Your task to perform on an android device: install app "Flipkart Online Shopping App" Image 0: 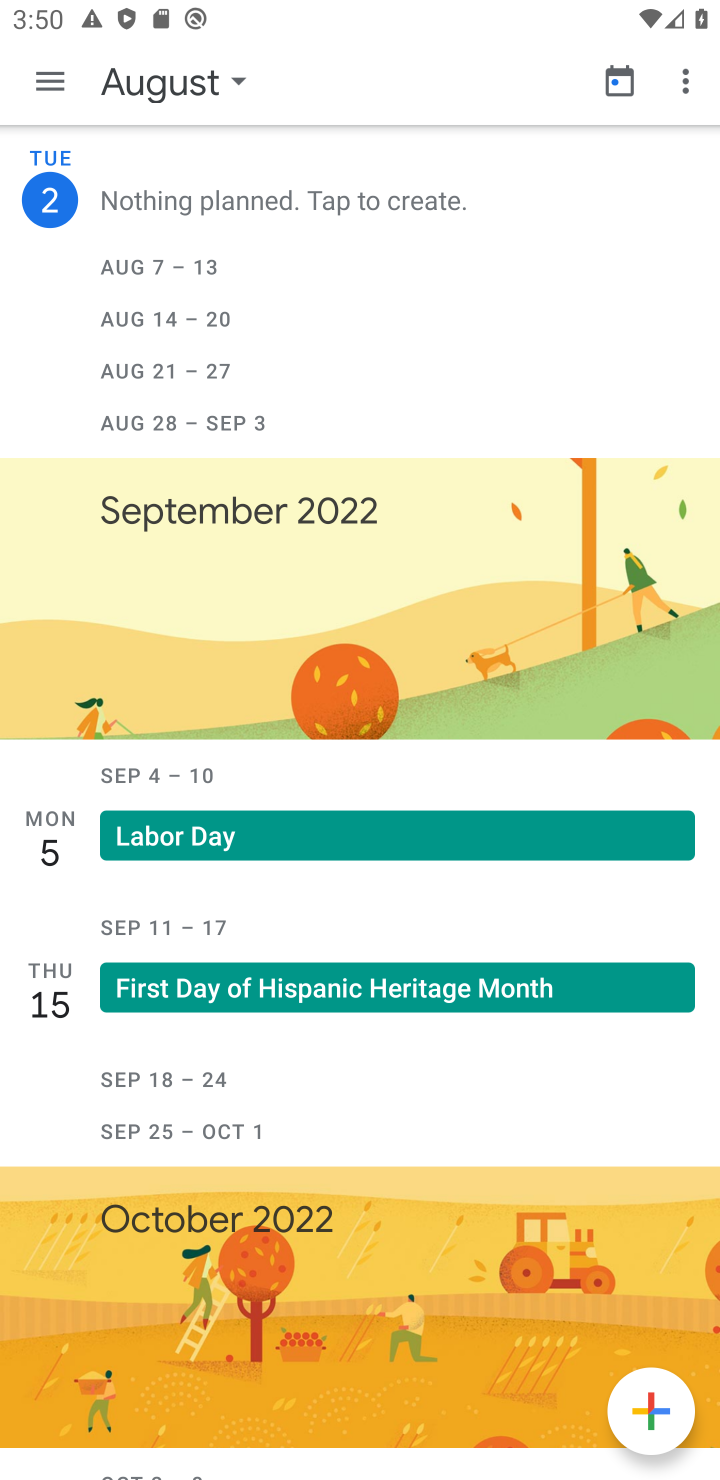
Step 0: press home button
Your task to perform on an android device: install app "Flipkart Online Shopping App" Image 1: 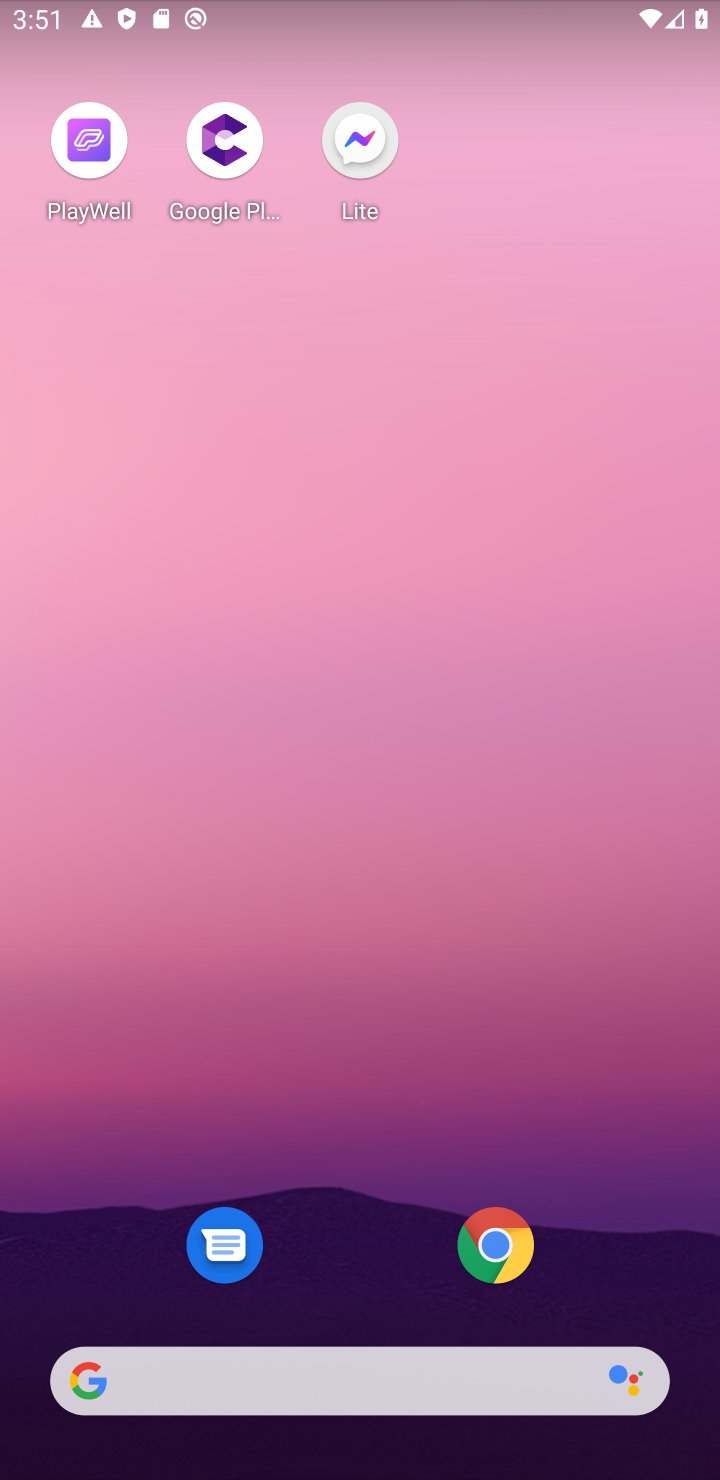
Step 1: drag from (382, 1035) to (406, 73)
Your task to perform on an android device: install app "Flipkart Online Shopping App" Image 2: 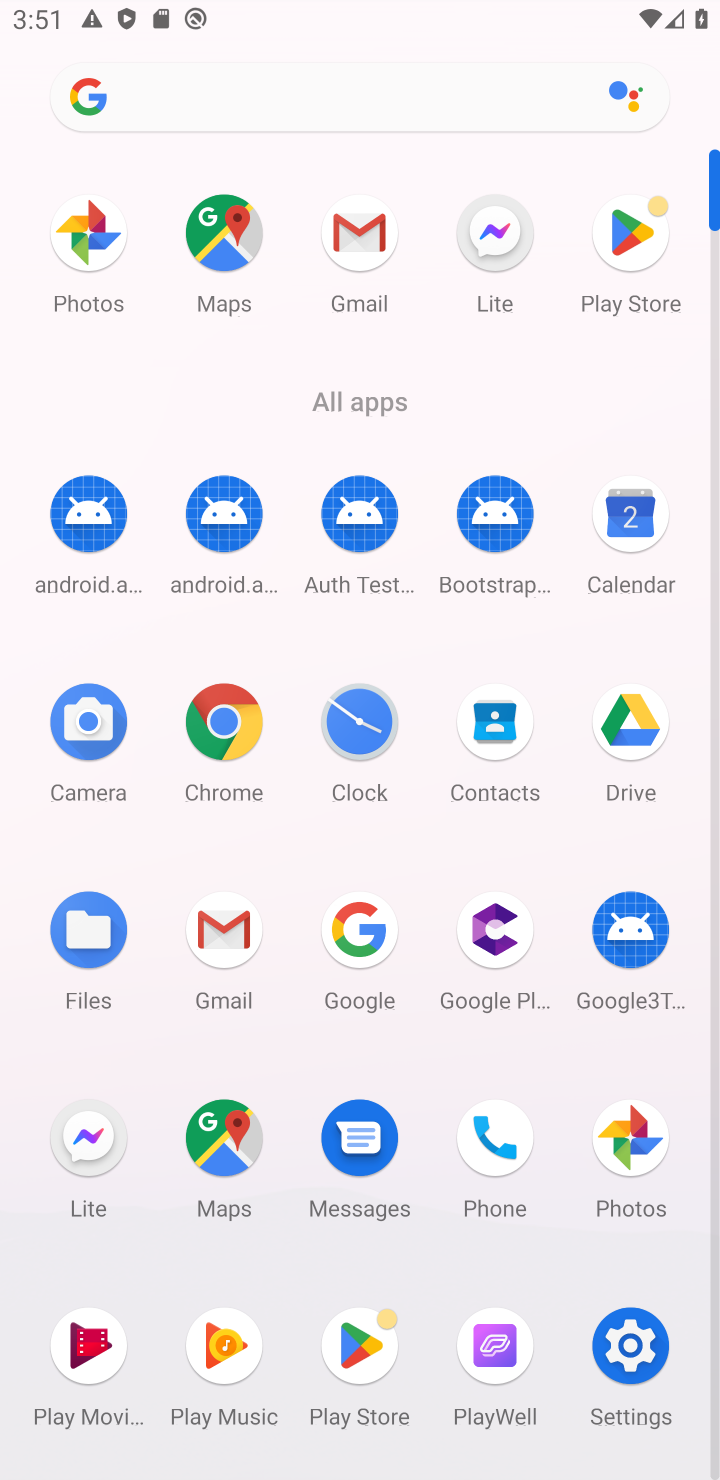
Step 2: click (627, 247)
Your task to perform on an android device: install app "Flipkart Online Shopping App" Image 3: 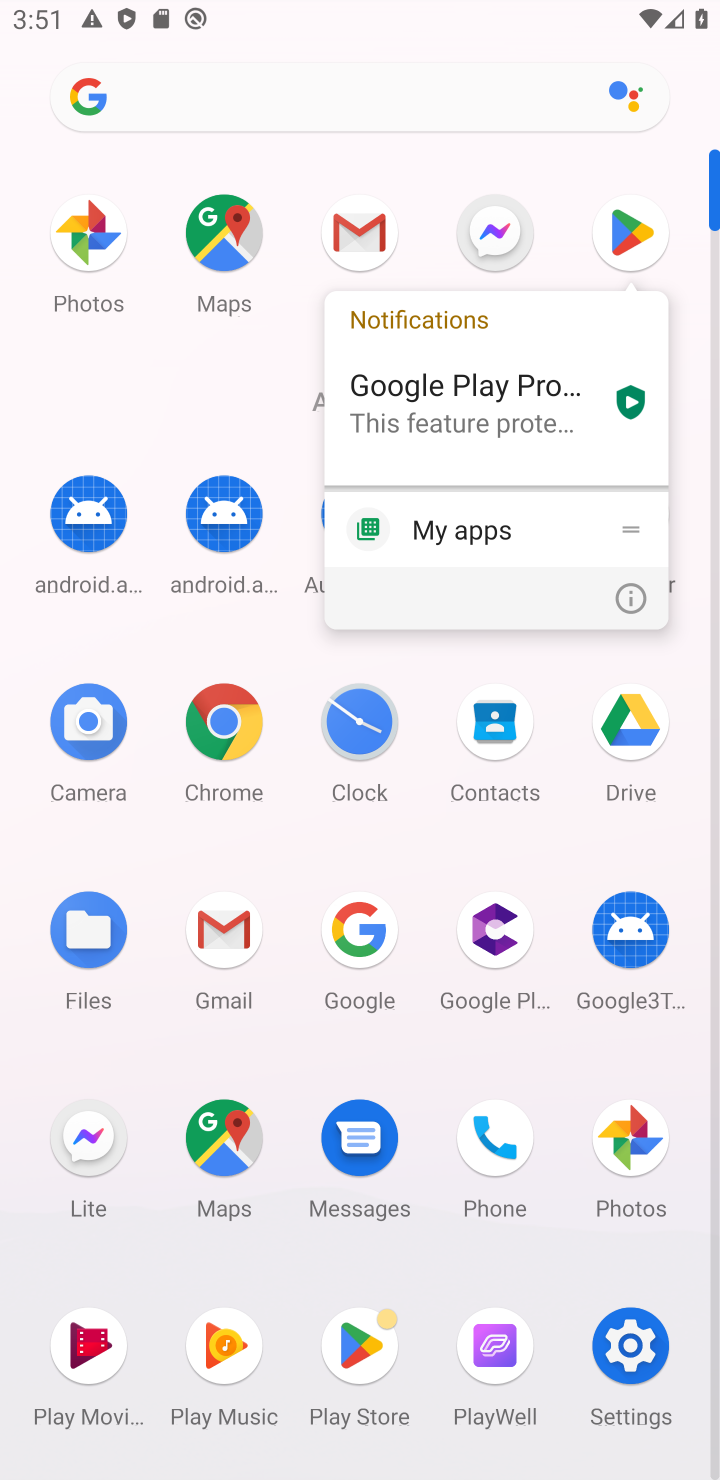
Step 3: click (627, 232)
Your task to perform on an android device: install app "Flipkart Online Shopping App" Image 4: 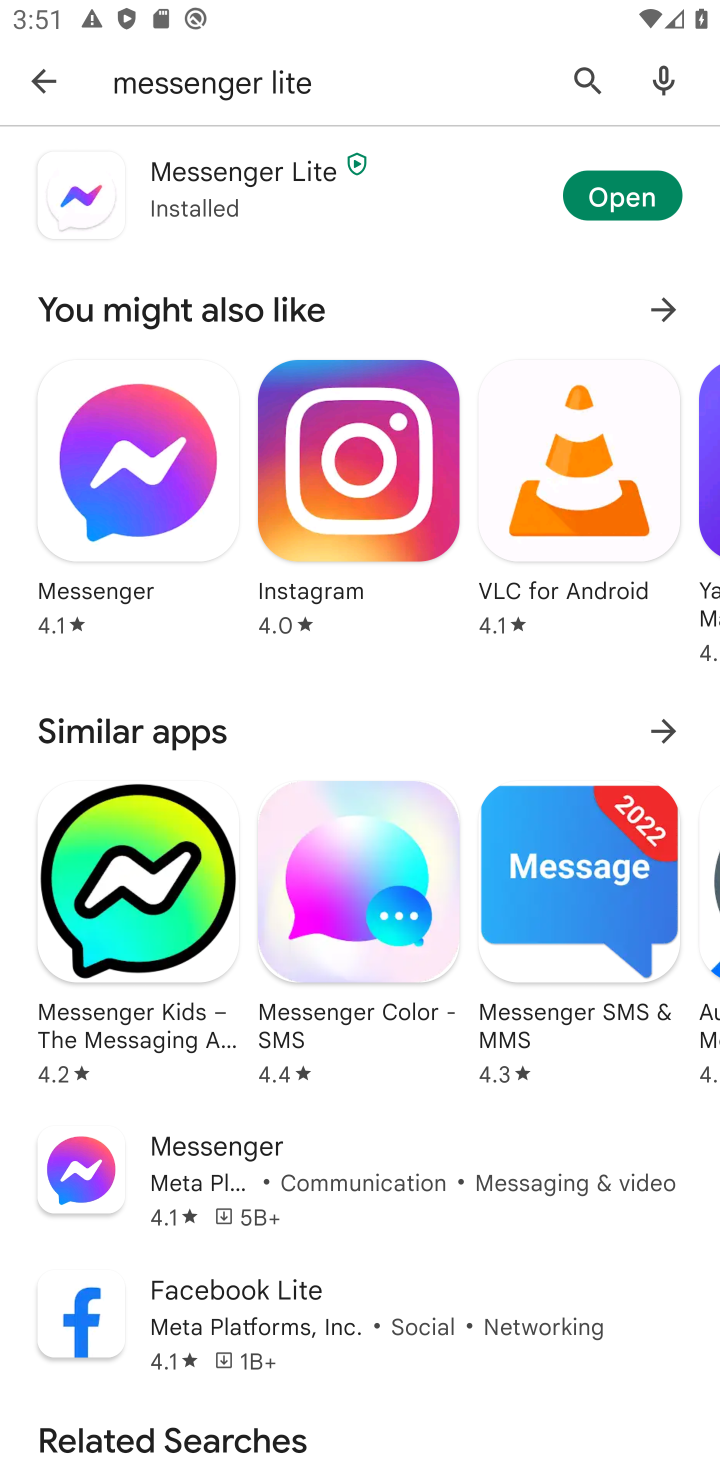
Step 4: click (586, 75)
Your task to perform on an android device: install app "Flipkart Online Shopping App" Image 5: 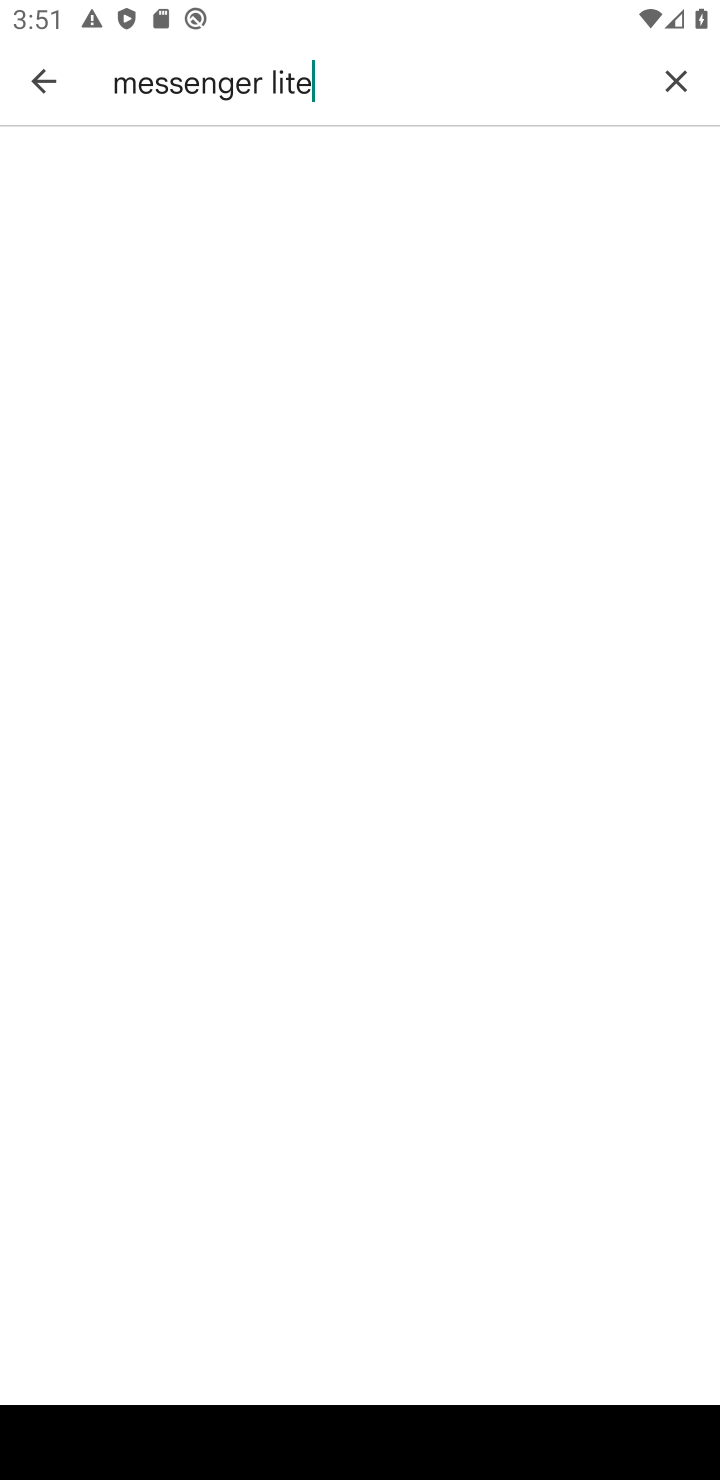
Step 5: click (664, 77)
Your task to perform on an android device: install app "Flipkart Online Shopping App" Image 6: 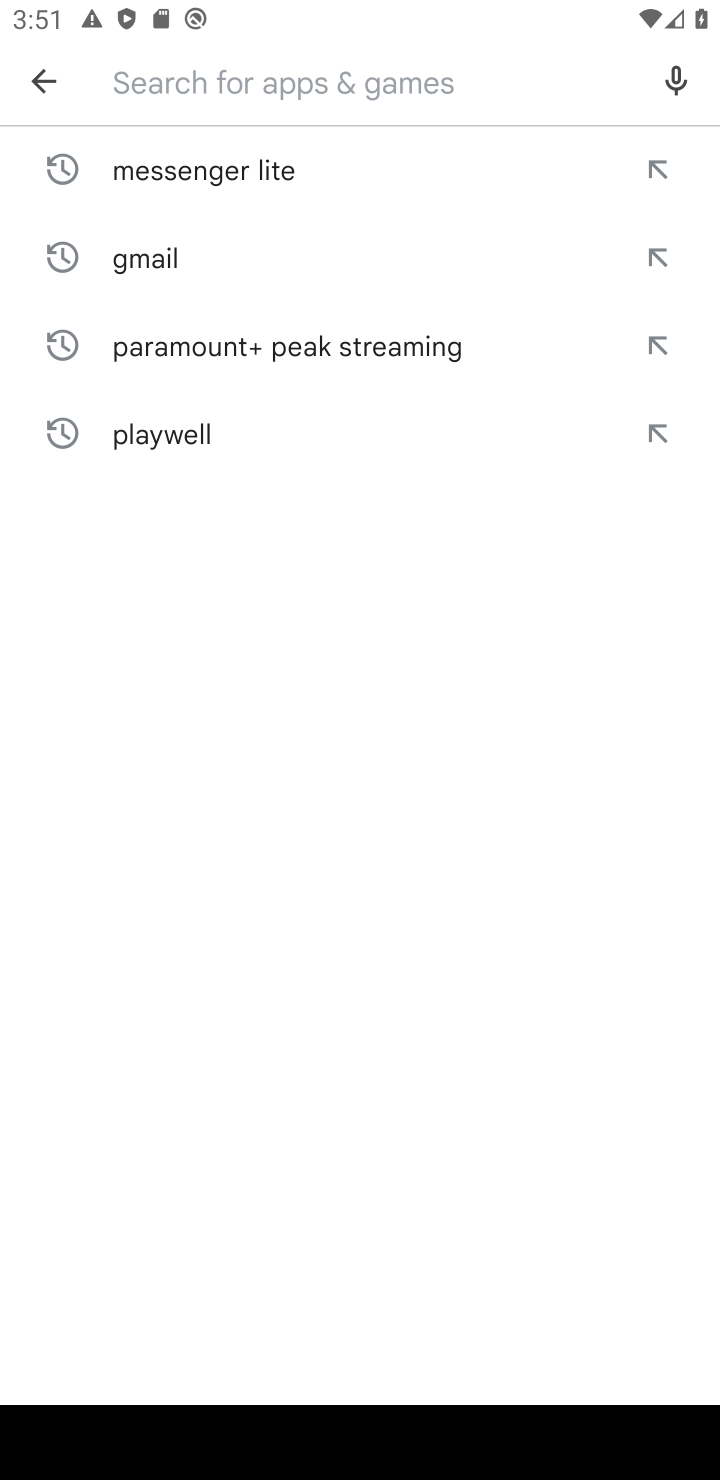
Step 6: type "Flipkart Online Shopping App"
Your task to perform on an android device: install app "Flipkart Online Shopping App" Image 7: 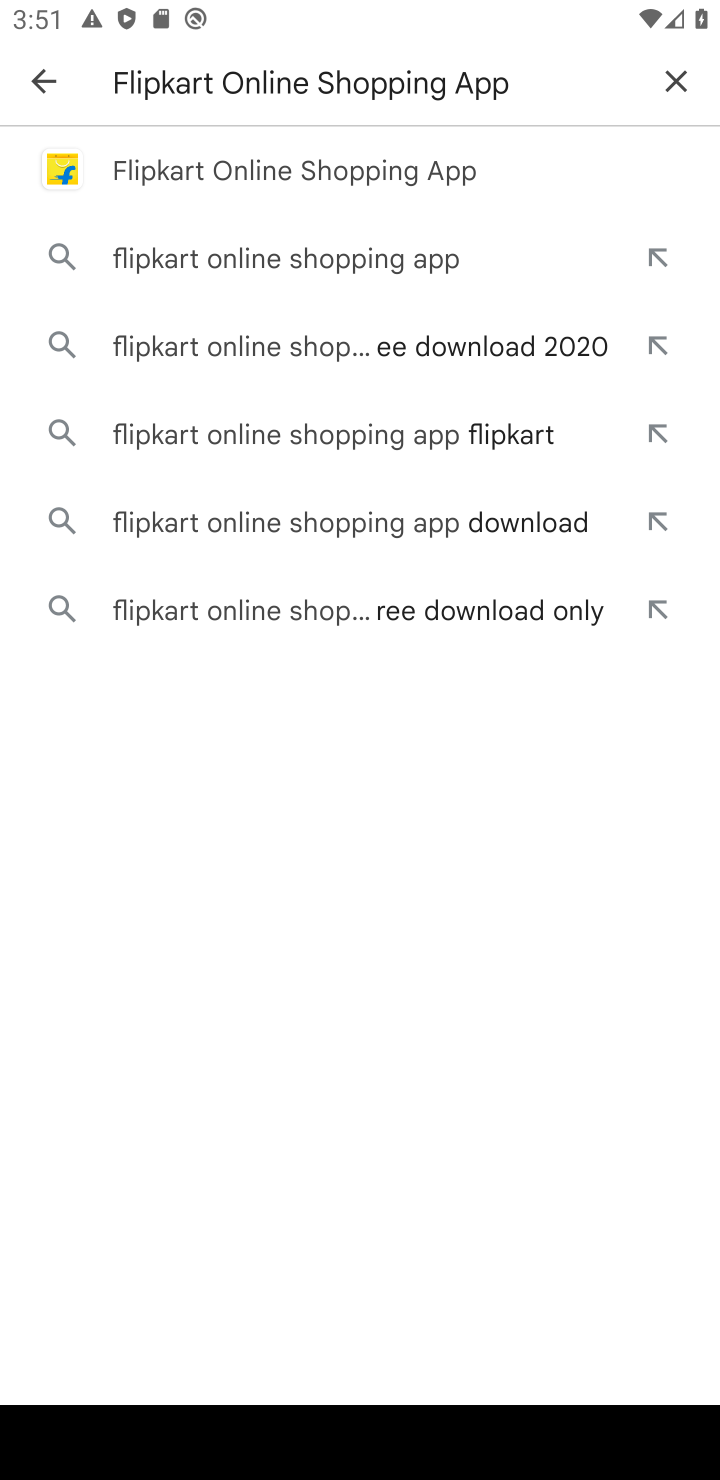
Step 7: click (287, 172)
Your task to perform on an android device: install app "Flipkart Online Shopping App" Image 8: 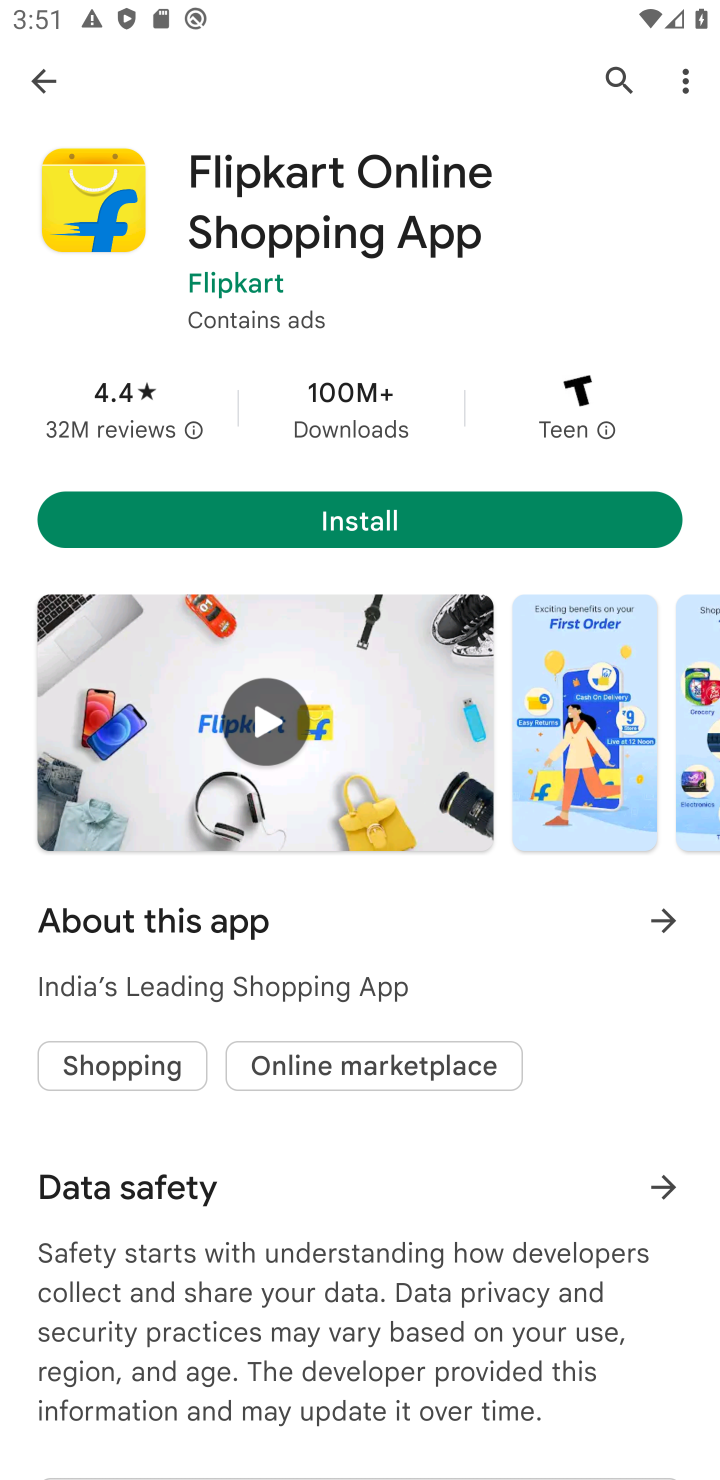
Step 8: click (336, 523)
Your task to perform on an android device: install app "Flipkart Online Shopping App" Image 9: 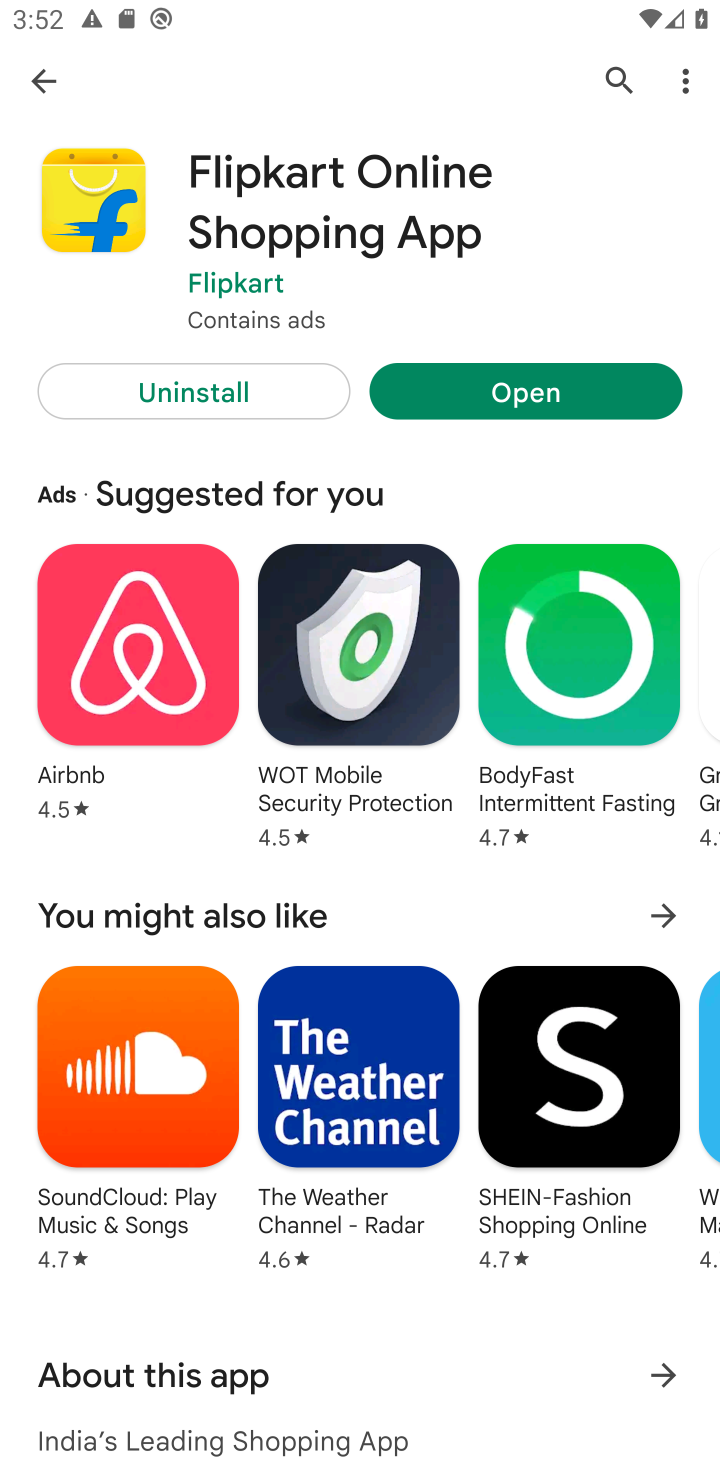
Step 9: task complete